Your task to perform on an android device: star an email in the gmail app Image 0: 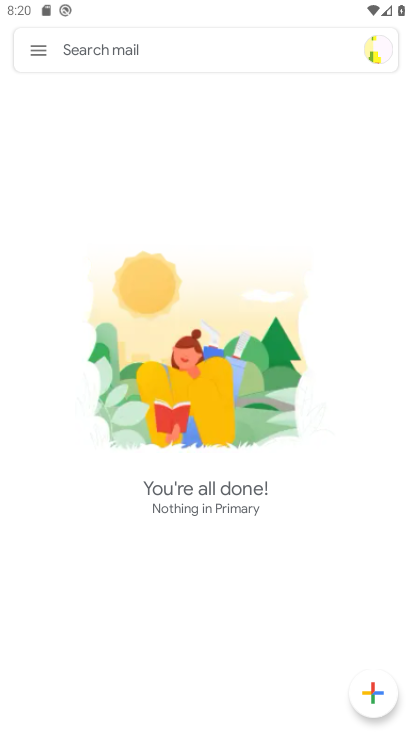
Step 0: click (30, 46)
Your task to perform on an android device: star an email in the gmail app Image 1: 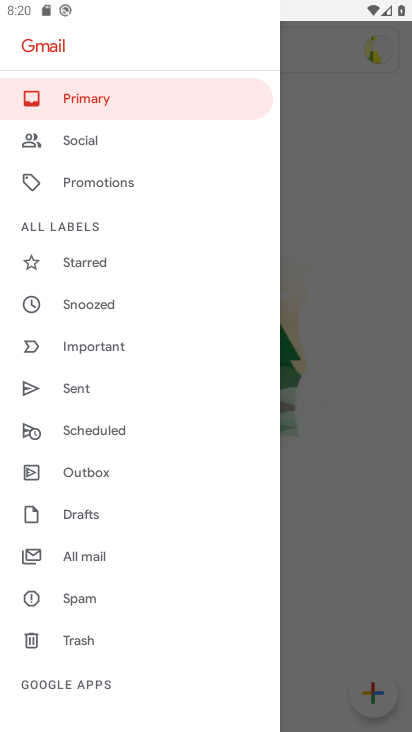
Step 1: drag from (206, 598) to (191, 266)
Your task to perform on an android device: star an email in the gmail app Image 2: 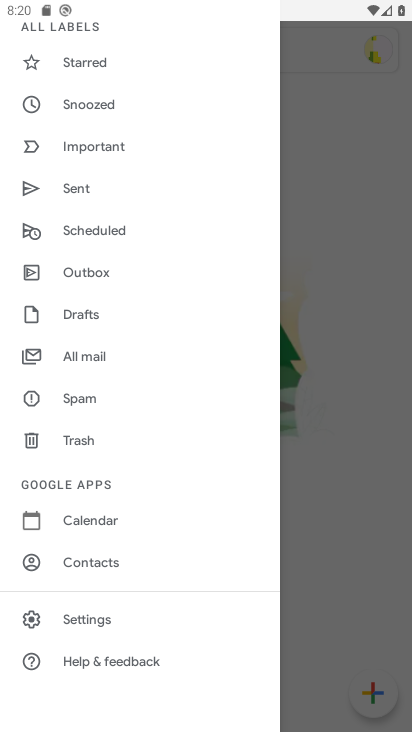
Step 2: drag from (181, 185) to (195, 420)
Your task to perform on an android device: star an email in the gmail app Image 3: 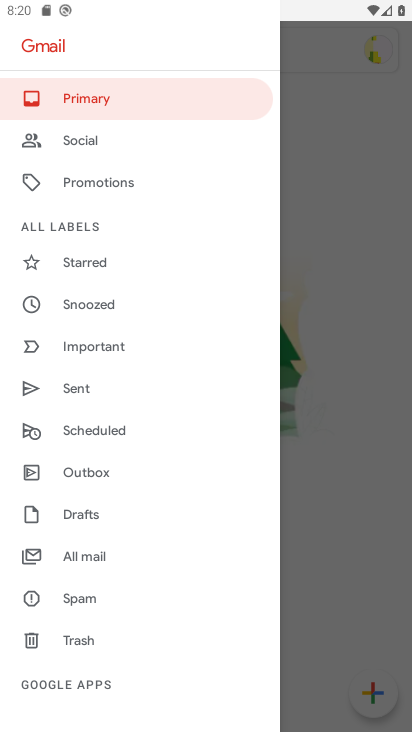
Step 3: click (175, 79)
Your task to perform on an android device: star an email in the gmail app Image 4: 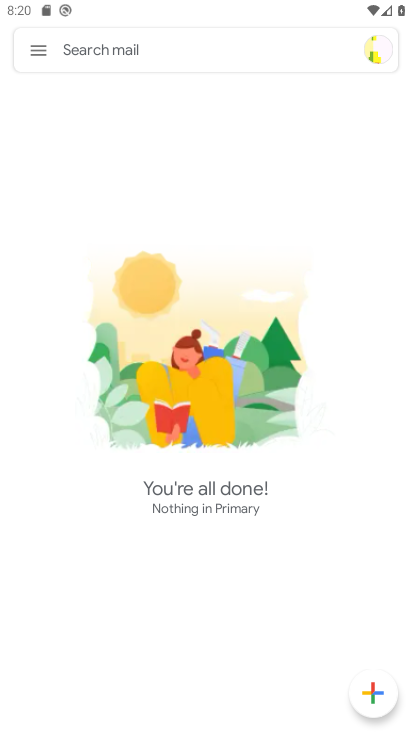
Step 4: task complete